Your task to perform on an android device: Open battery settings Image 0: 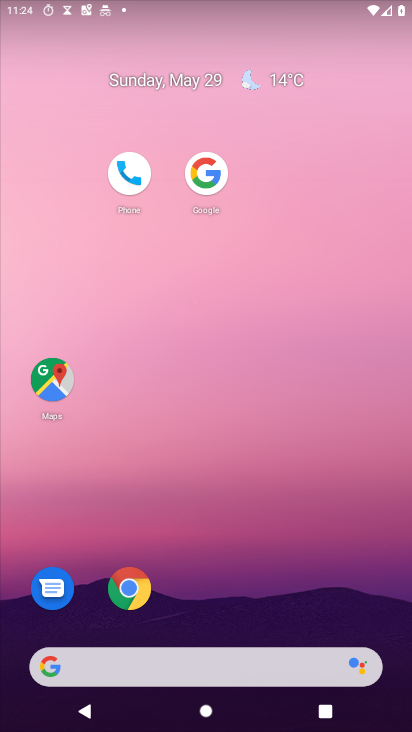
Step 0: drag from (209, 574) to (180, 171)
Your task to perform on an android device: Open battery settings Image 1: 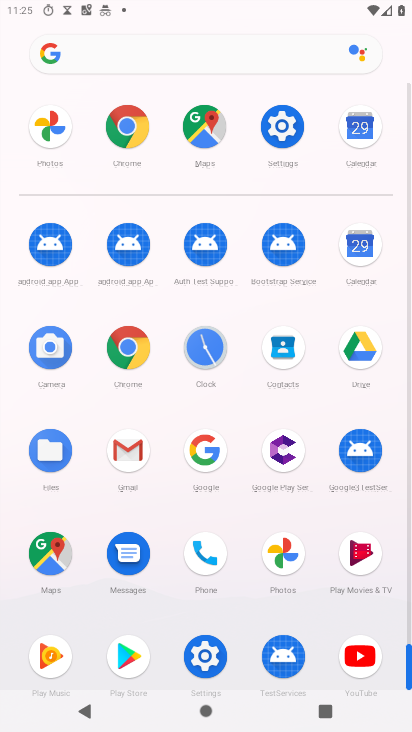
Step 1: click (201, 660)
Your task to perform on an android device: Open battery settings Image 2: 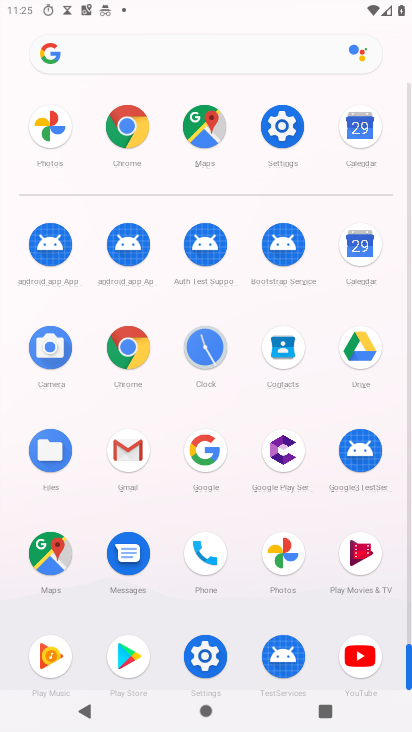
Step 2: click (196, 650)
Your task to perform on an android device: Open battery settings Image 3: 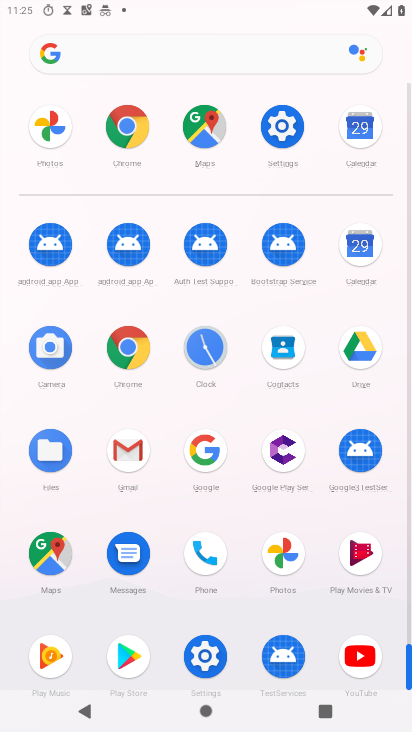
Step 3: click (196, 650)
Your task to perform on an android device: Open battery settings Image 4: 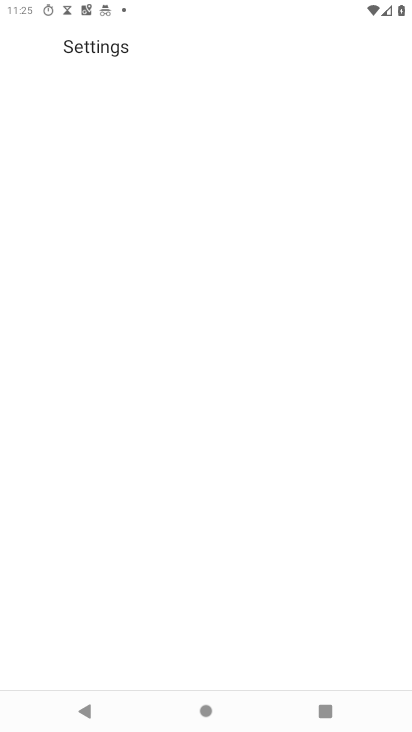
Step 4: click (196, 650)
Your task to perform on an android device: Open battery settings Image 5: 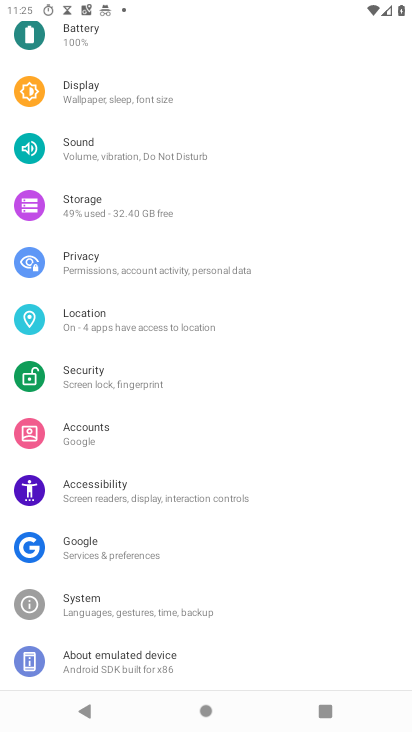
Step 5: click (197, 649)
Your task to perform on an android device: Open battery settings Image 6: 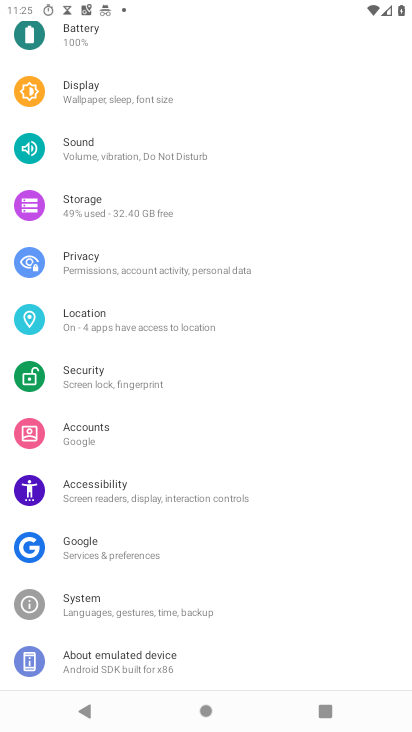
Step 6: click (200, 646)
Your task to perform on an android device: Open battery settings Image 7: 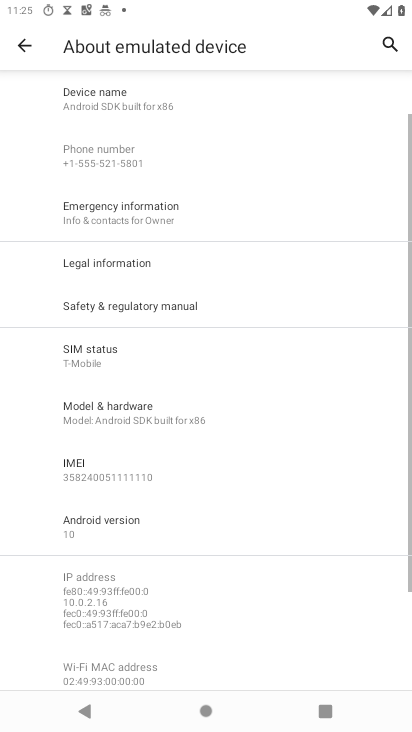
Step 7: click (25, 37)
Your task to perform on an android device: Open battery settings Image 8: 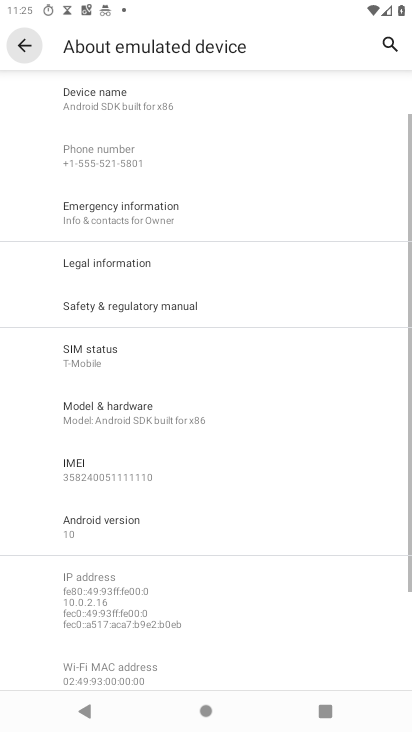
Step 8: click (31, 37)
Your task to perform on an android device: Open battery settings Image 9: 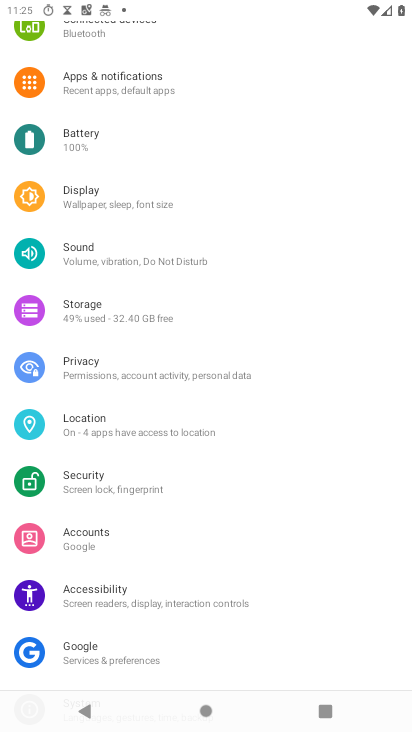
Step 9: drag from (115, 176) to (176, 371)
Your task to perform on an android device: Open battery settings Image 10: 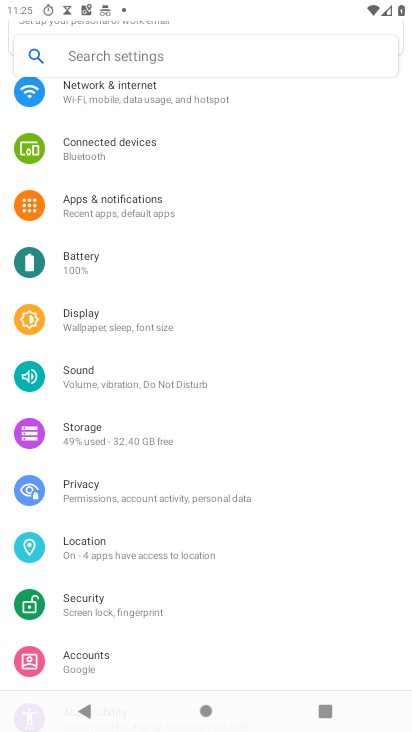
Step 10: click (65, 272)
Your task to perform on an android device: Open battery settings Image 11: 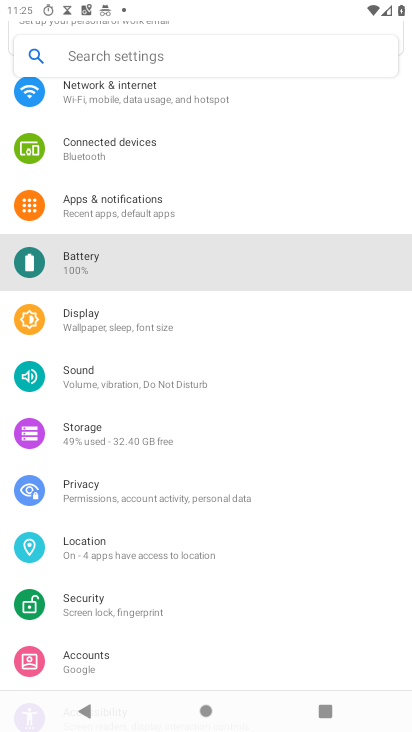
Step 11: click (68, 257)
Your task to perform on an android device: Open battery settings Image 12: 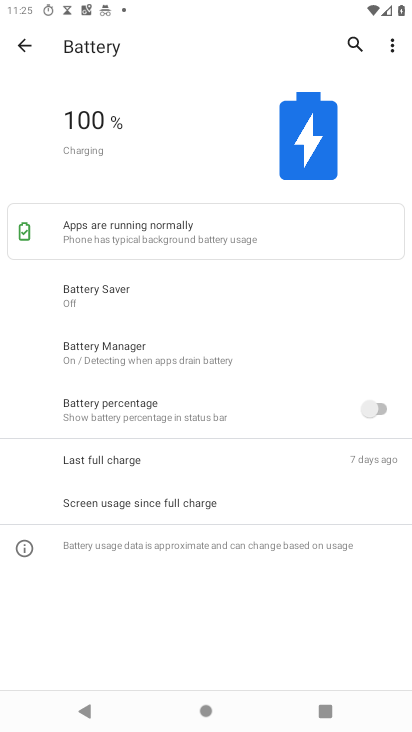
Step 12: click (69, 256)
Your task to perform on an android device: Open battery settings Image 13: 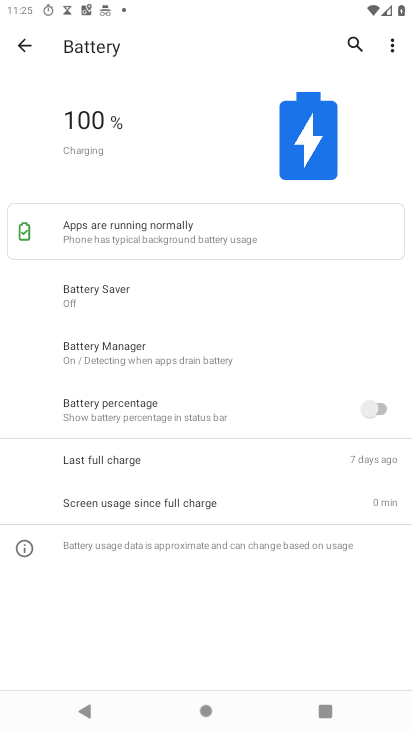
Step 13: click (70, 256)
Your task to perform on an android device: Open battery settings Image 14: 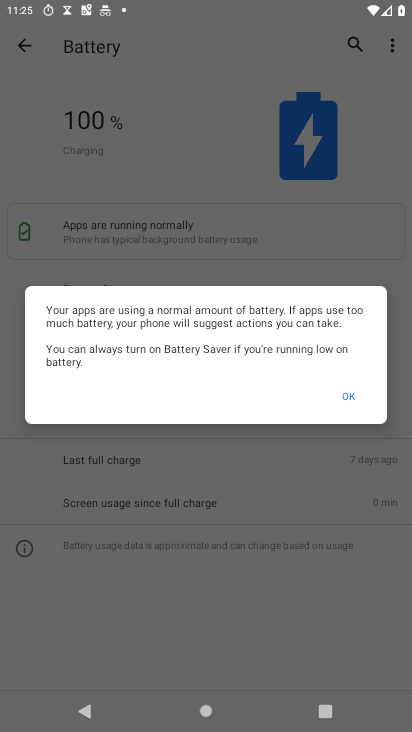
Step 14: task complete